Your task to perform on an android device: change alarm snooze length Image 0: 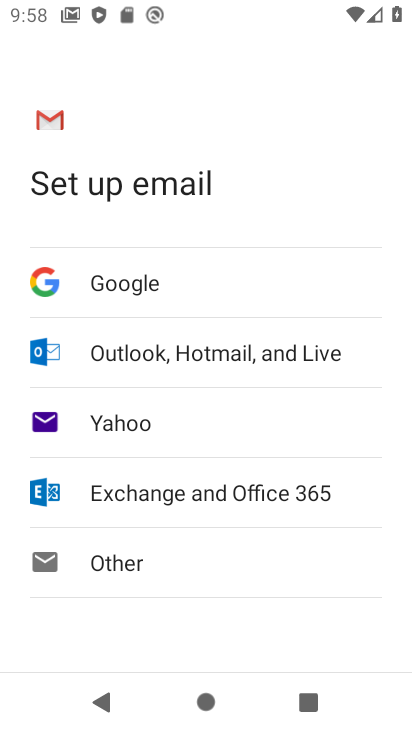
Step 0: press home button
Your task to perform on an android device: change alarm snooze length Image 1: 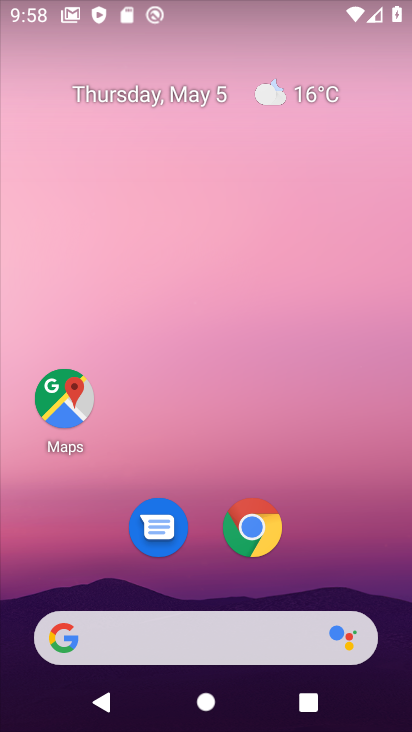
Step 1: drag from (24, 571) to (233, 169)
Your task to perform on an android device: change alarm snooze length Image 2: 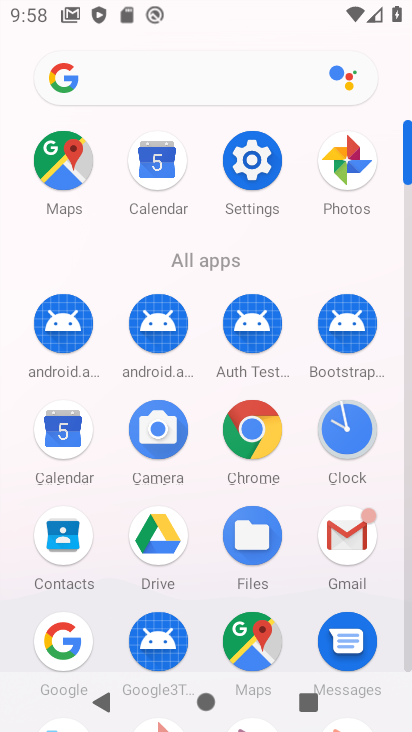
Step 2: click (353, 424)
Your task to perform on an android device: change alarm snooze length Image 3: 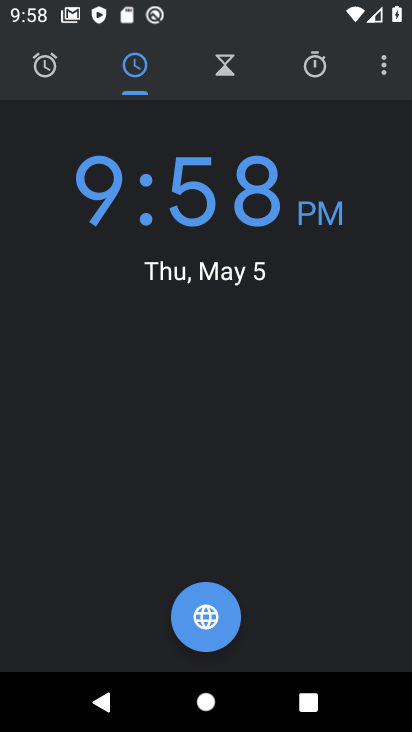
Step 3: click (376, 69)
Your task to perform on an android device: change alarm snooze length Image 4: 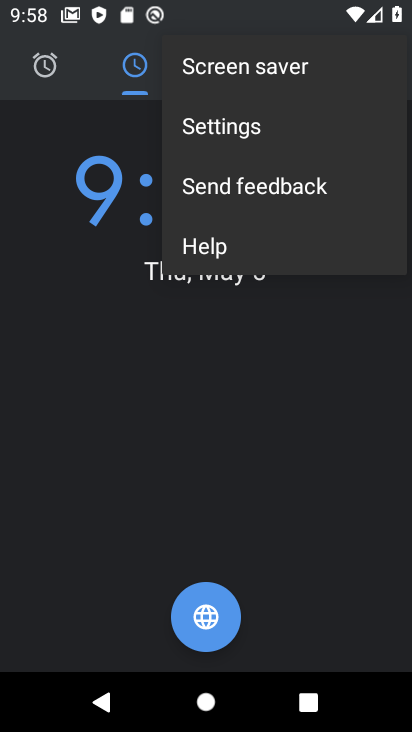
Step 4: click (254, 124)
Your task to perform on an android device: change alarm snooze length Image 5: 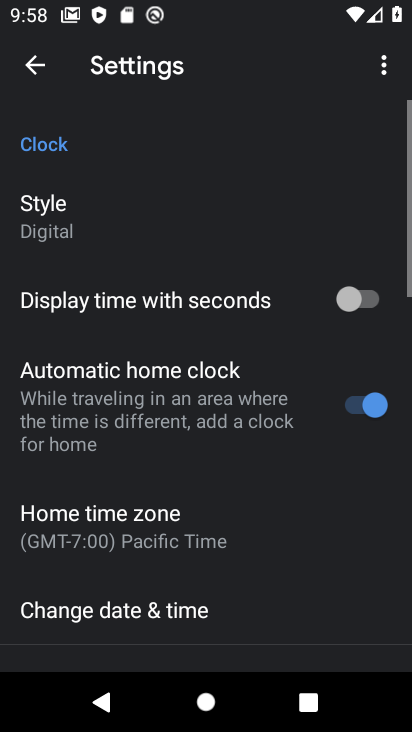
Step 5: drag from (153, 584) to (251, 210)
Your task to perform on an android device: change alarm snooze length Image 6: 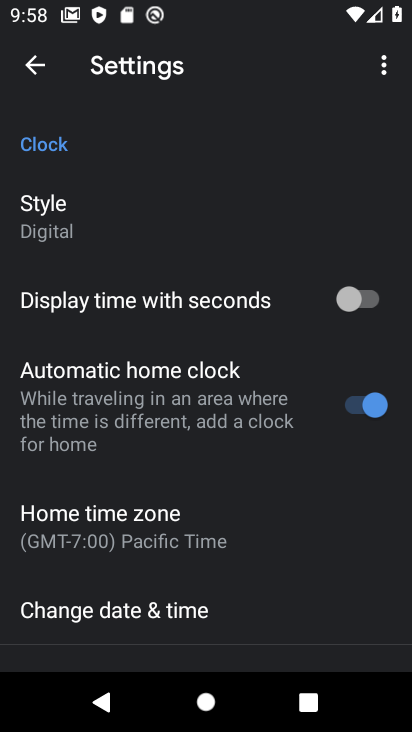
Step 6: drag from (191, 571) to (274, 208)
Your task to perform on an android device: change alarm snooze length Image 7: 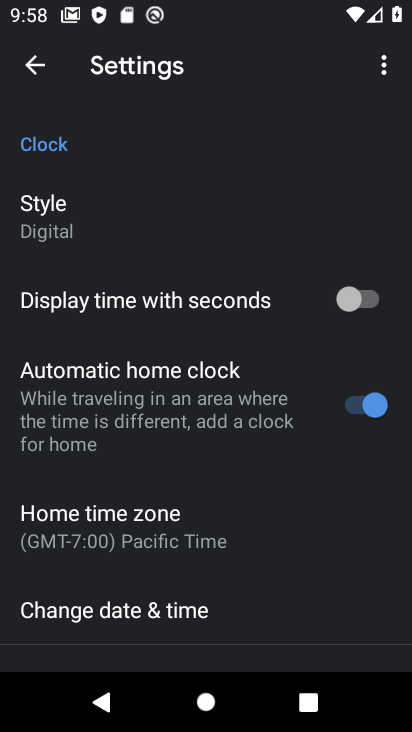
Step 7: drag from (141, 622) to (226, 224)
Your task to perform on an android device: change alarm snooze length Image 8: 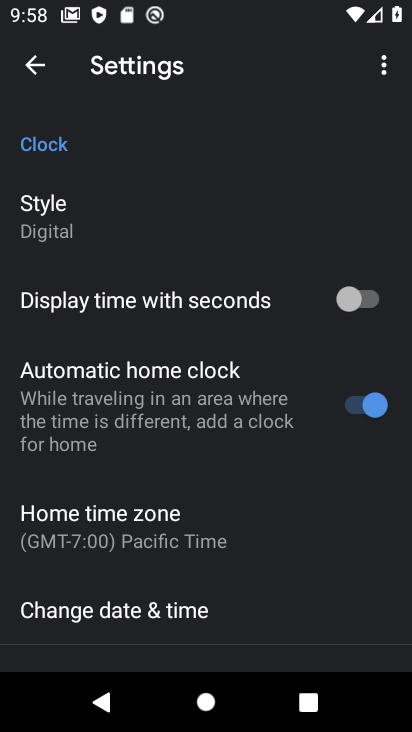
Step 8: drag from (56, 611) to (177, 105)
Your task to perform on an android device: change alarm snooze length Image 9: 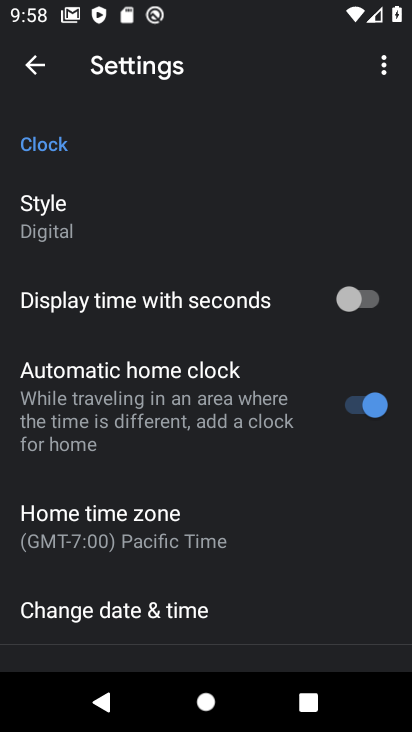
Step 9: drag from (25, 571) to (217, 207)
Your task to perform on an android device: change alarm snooze length Image 10: 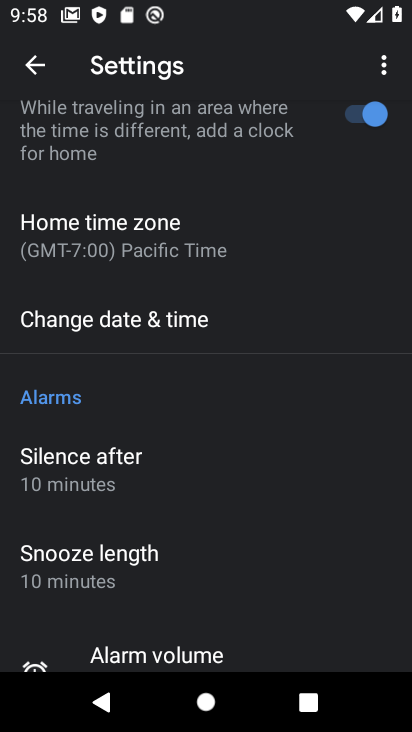
Step 10: click (91, 561)
Your task to perform on an android device: change alarm snooze length Image 11: 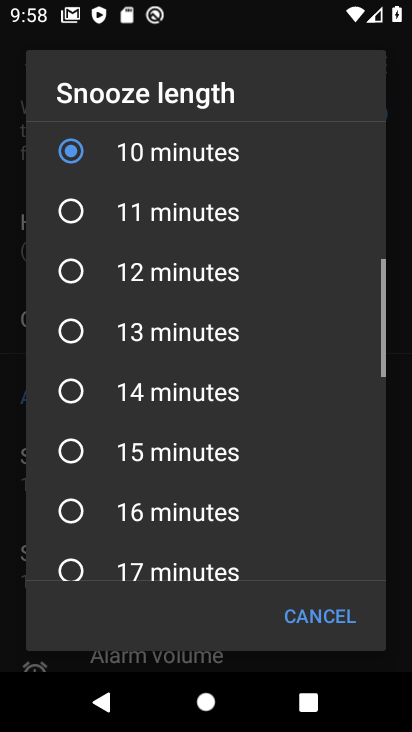
Step 11: click (144, 209)
Your task to perform on an android device: change alarm snooze length Image 12: 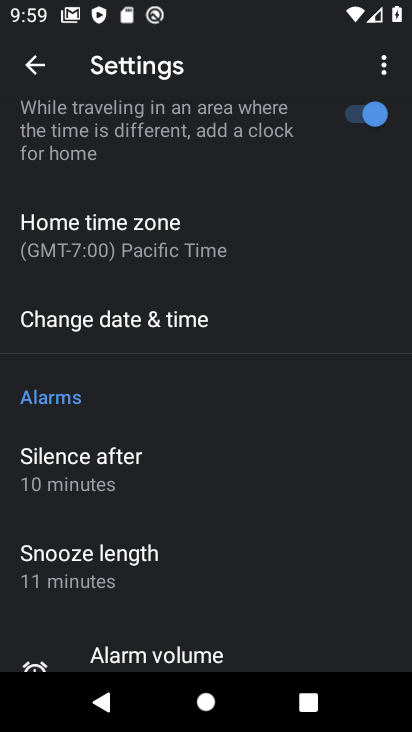
Step 12: task complete